Your task to perform on an android device: turn off location Image 0: 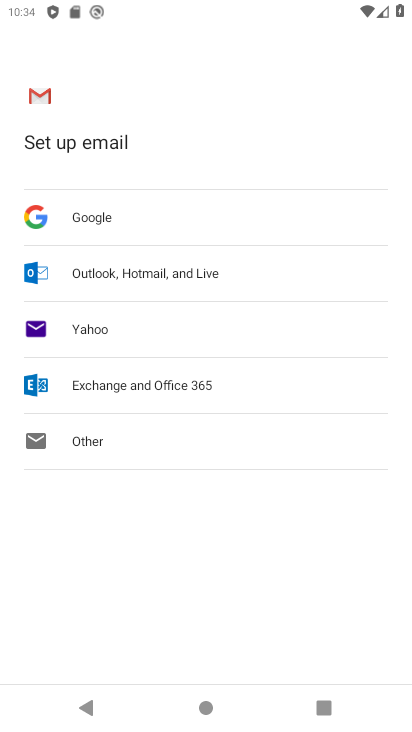
Step 0: press home button
Your task to perform on an android device: turn off location Image 1: 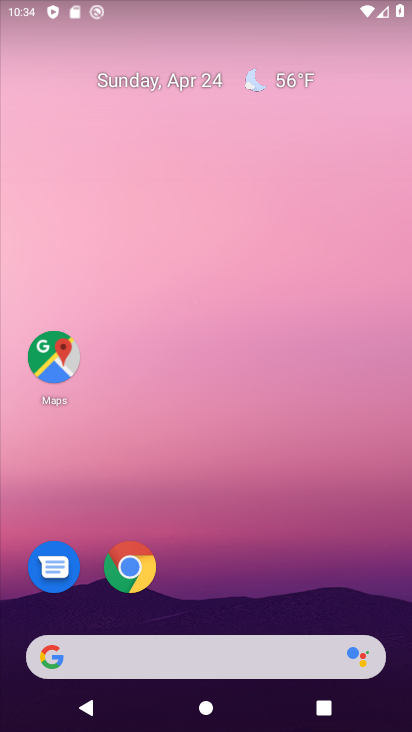
Step 1: drag from (396, 638) to (372, 162)
Your task to perform on an android device: turn off location Image 2: 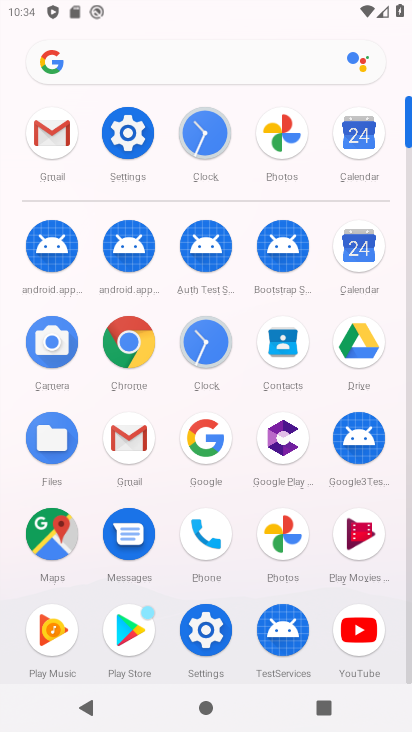
Step 2: click (205, 627)
Your task to perform on an android device: turn off location Image 3: 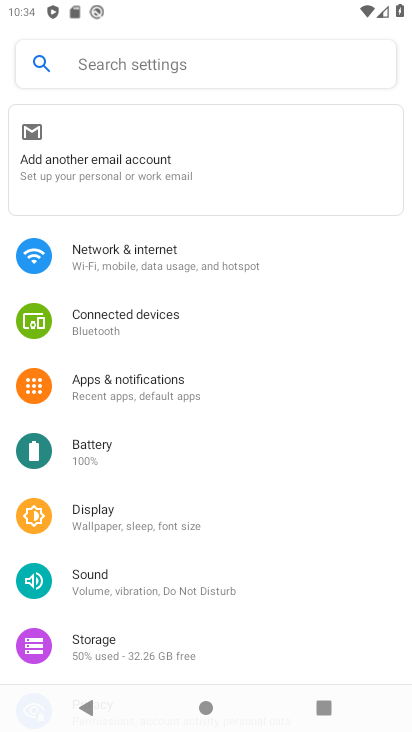
Step 3: drag from (312, 347) to (303, 281)
Your task to perform on an android device: turn off location Image 4: 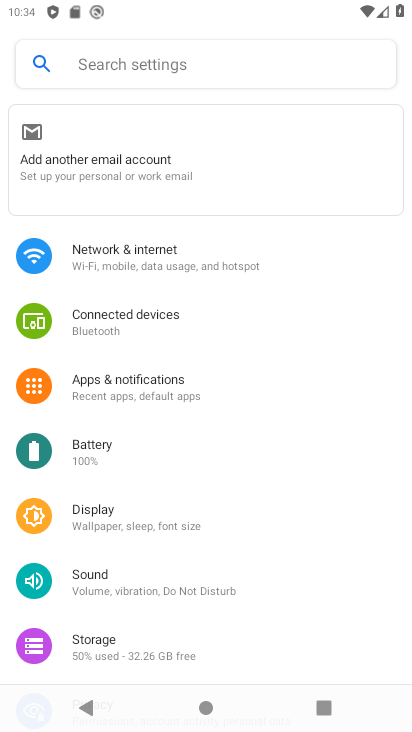
Step 4: drag from (363, 629) to (361, 274)
Your task to perform on an android device: turn off location Image 5: 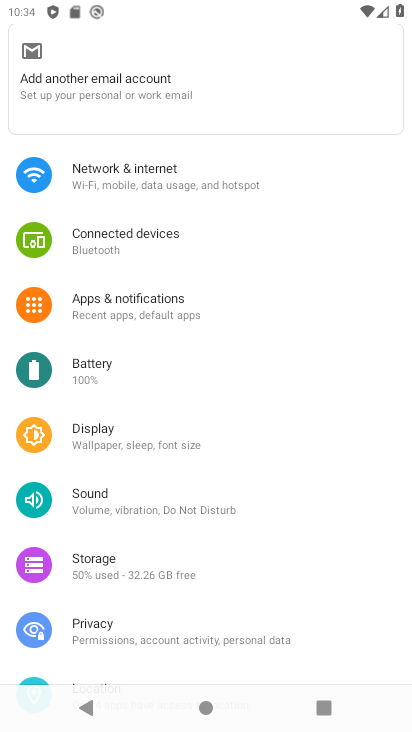
Step 5: drag from (343, 331) to (342, 292)
Your task to perform on an android device: turn off location Image 6: 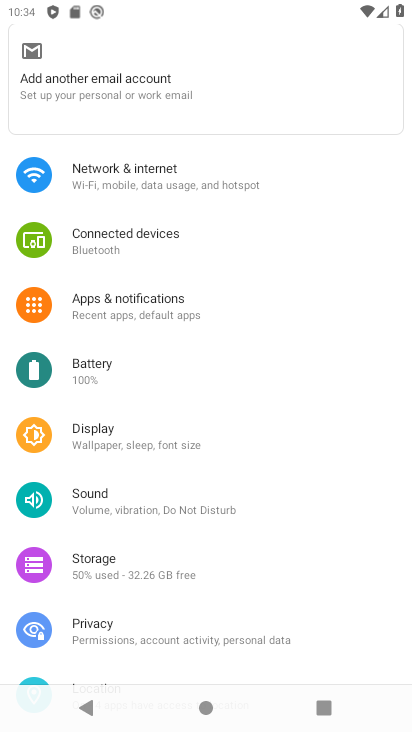
Step 6: drag from (362, 621) to (338, 250)
Your task to perform on an android device: turn off location Image 7: 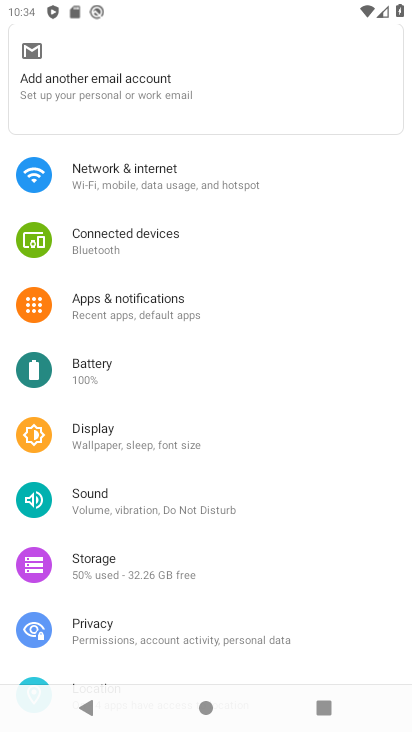
Step 7: drag from (364, 550) to (342, 242)
Your task to perform on an android device: turn off location Image 8: 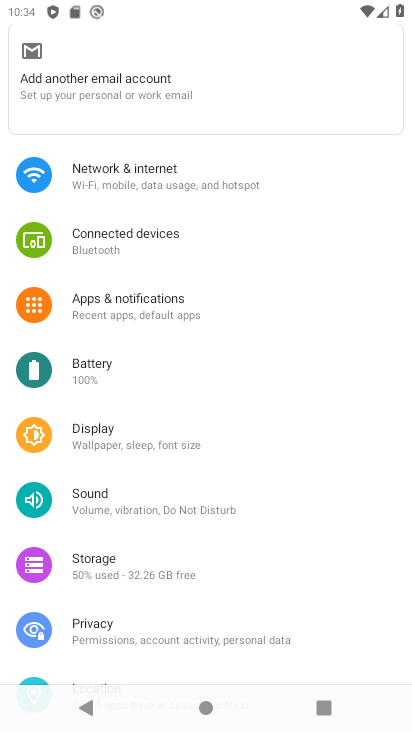
Step 8: drag from (370, 660) to (351, 260)
Your task to perform on an android device: turn off location Image 9: 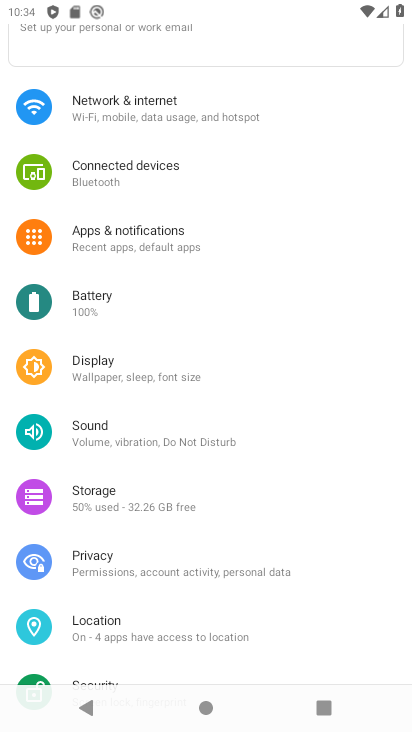
Step 9: click (104, 623)
Your task to perform on an android device: turn off location Image 10: 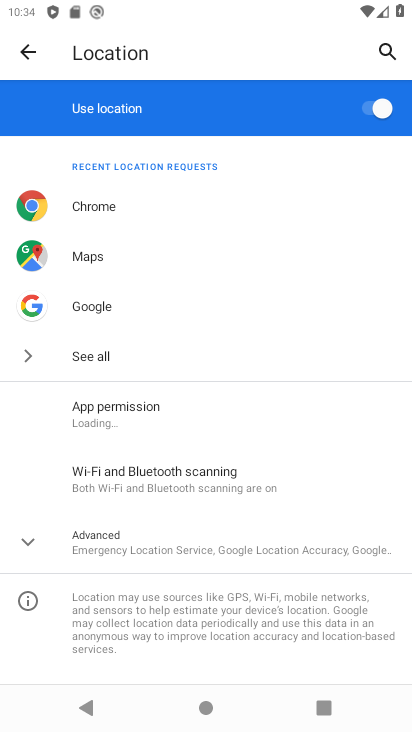
Step 10: click (371, 109)
Your task to perform on an android device: turn off location Image 11: 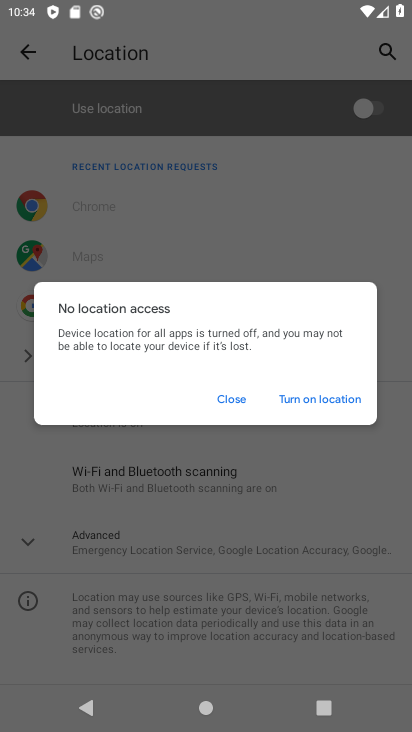
Step 11: click (233, 396)
Your task to perform on an android device: turn off location Image 12: 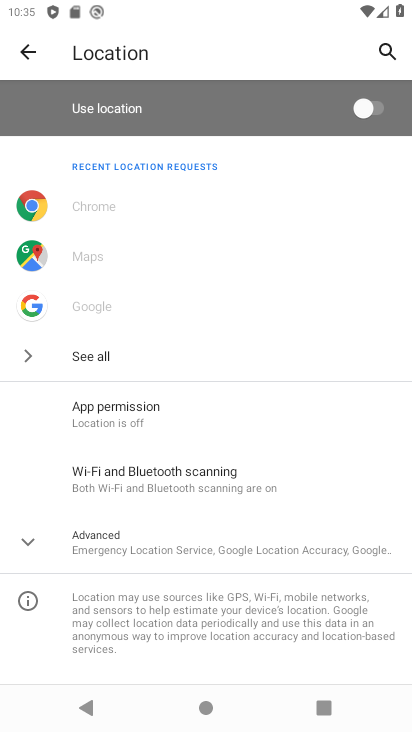
Step 12: task complete